Your task to perform on an android device: Open wifi settings Image 0: 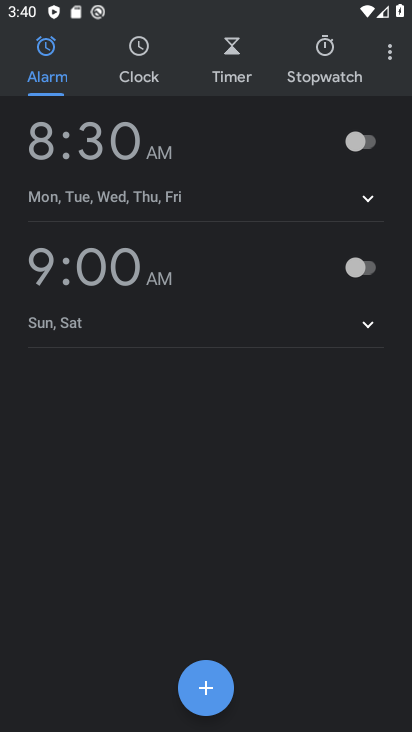
Step 0: press home button
Your task to perform on an android device: Open wifi settings Image 1: 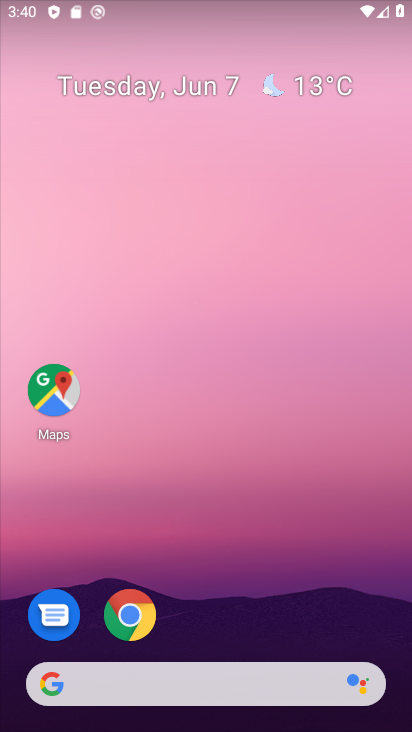
Step 1: drag from (213, 619) to (322, 0)
Your task to perform on an android device: Open wifi settings Image 2: 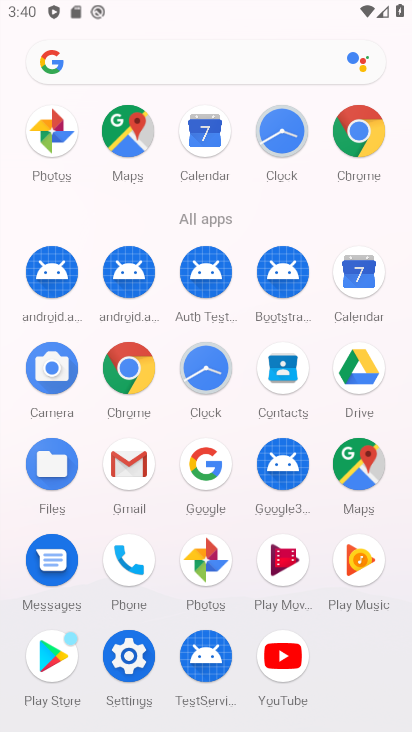
Step 2: click (128, 664)
Your task to perform on an android device: Open wifi settings Image 3: 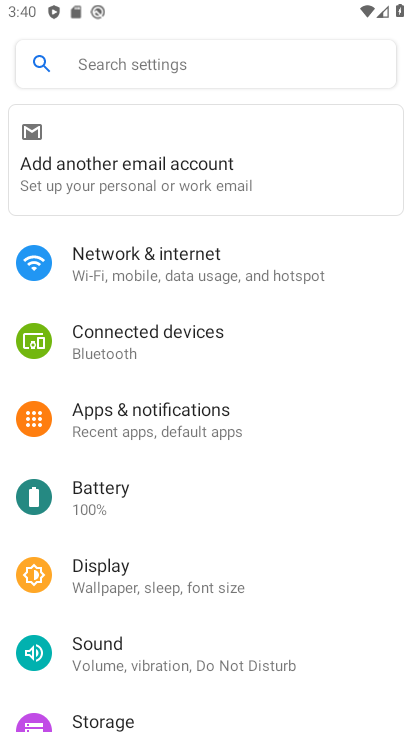
Step 3: click (132, 266)
Your task to perform on an android device: Open wifi settings Image 4: 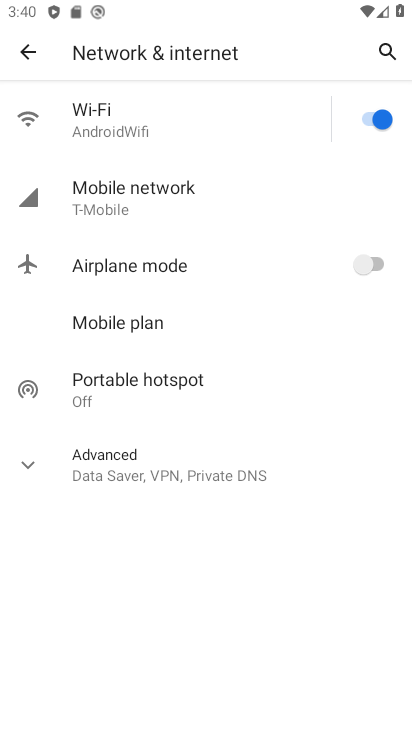
Step 4: click (118, 120)
Your task to perform on an android device: Open wifi settings Image 5: 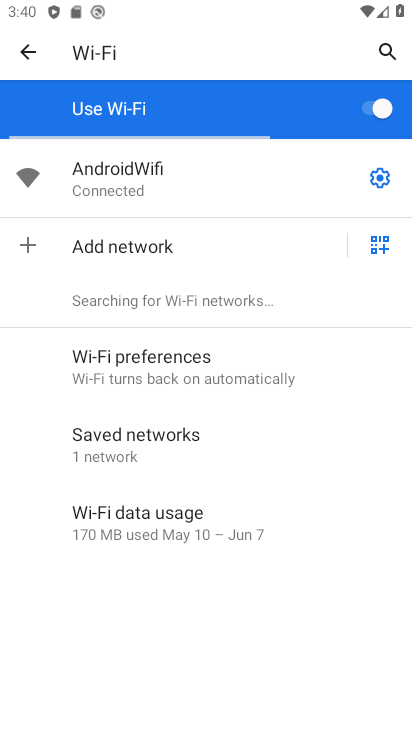
Step 5: task complete